Your task to perform on an android device: toggle wifi Image 0: 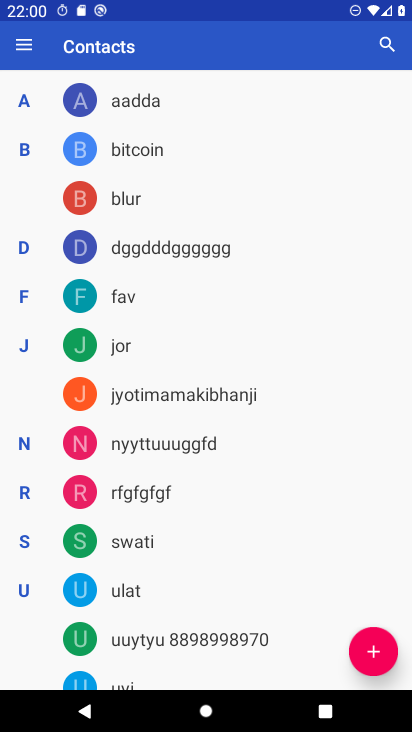
Step 0: press home button
Your task to perform on an android device: toggle wifi Image 1: 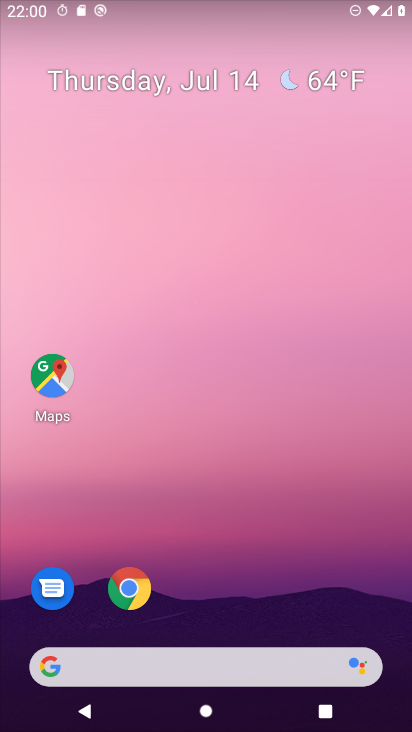
Step 1: drag from (358, 602) to (374, 49)
Your task to perform on an android device: toggle wifi Image 2: 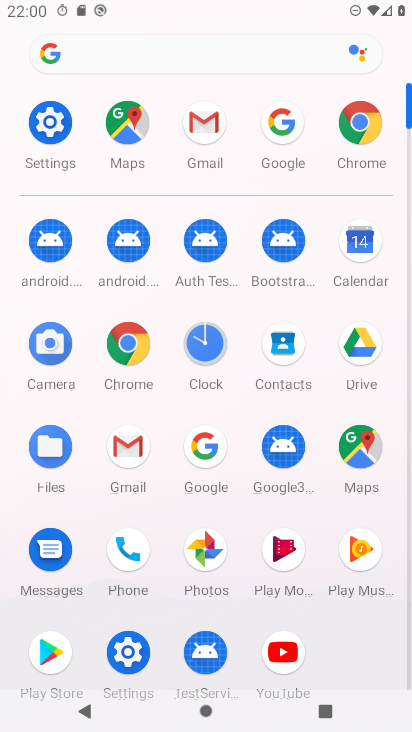
Step 2: click (49, 122)
Your task to perform on an android device: toggle wifi Image 3: 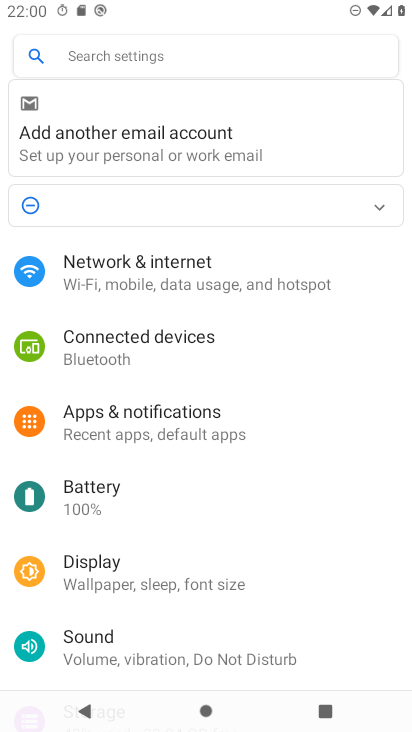
Step 3: drag from (343, 522) to (344, 431)
Your task to perform on an android device: toggle wifi Image 4: 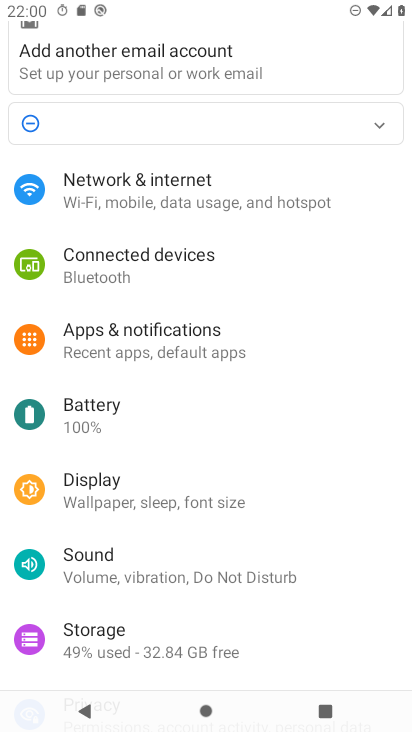
Step 4: drag from (346, 552) to (346, 436)
Your task to perform on an android device: toggle wifi Image 5: 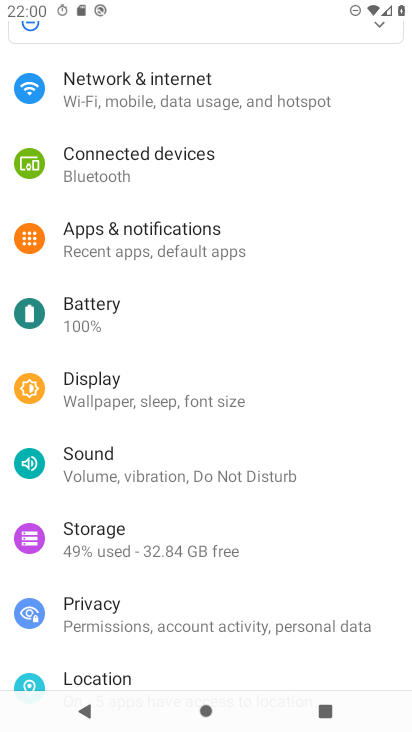
Step 5: drag from (344, 554) to (342, 439)
Your task to perform on an android device: toggle wifi Image 6: 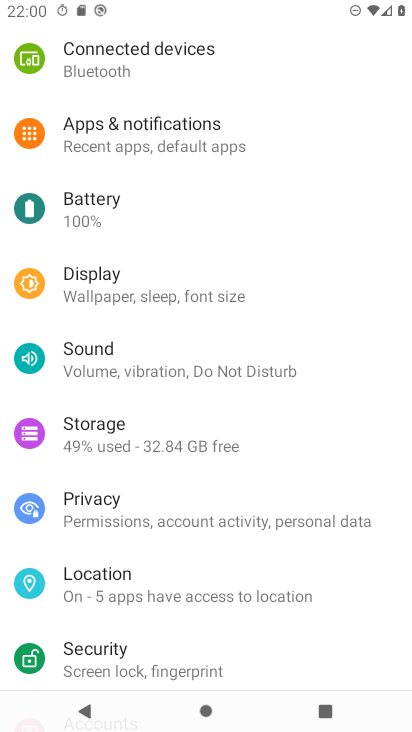
Step 6: drag from (349, 597) to (351, 507)
Your task to perform on an android device: toggle wifi Image 7: 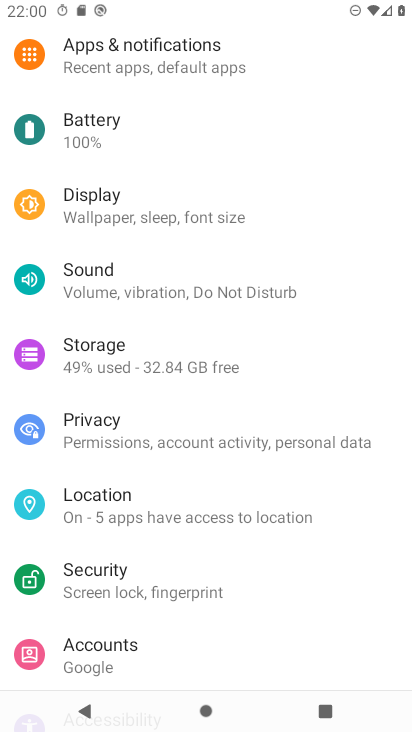
Step 7: drag from (353, 573) to (347, 453)
Your task to perform on an android device: toggle wifi Image 8: 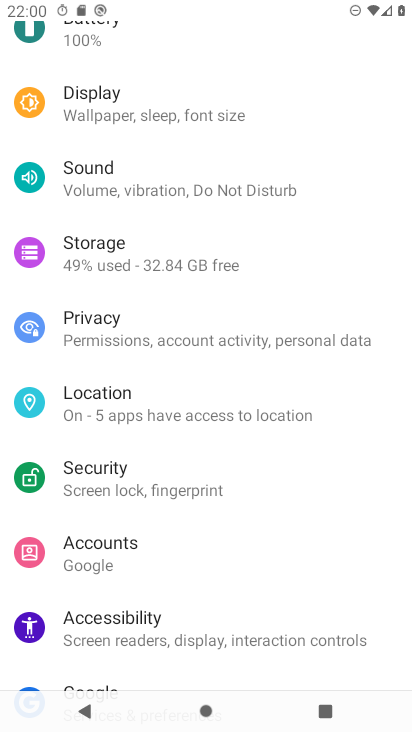
Step 8: drag from (345, 585) to (358, 419)
Your task to perform on an android device: toggle wifi Image 9: 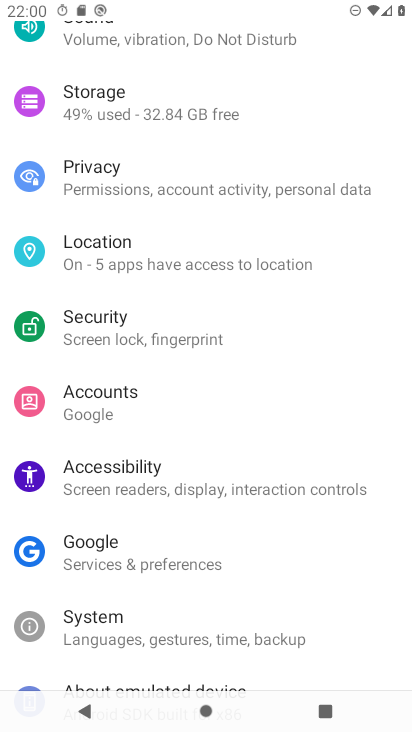
Step 9: drag from (377, 284) to (379, 379)
Your task to perform on an android device: toggle wifi Image 10: 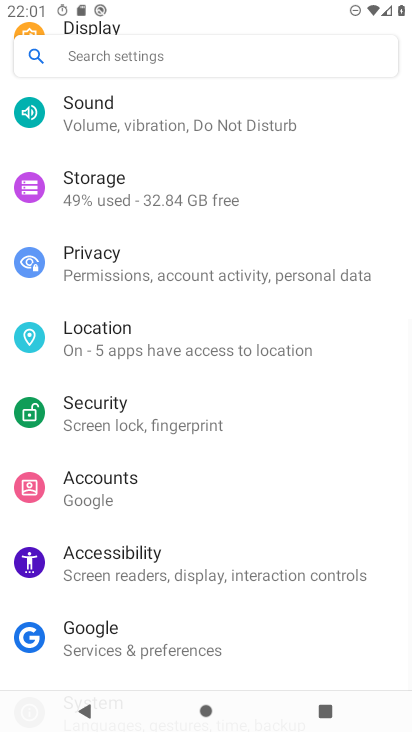
Step 10: drag from (379, 240) to (379, 352)
Your task to perform on an android device: toggle wifi Image 11: 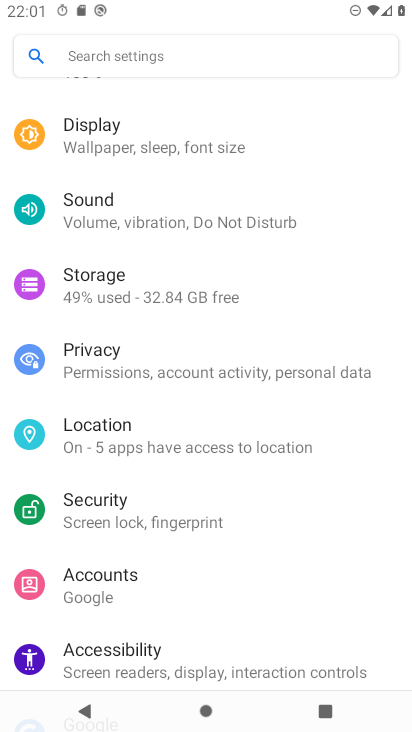
Step 11: drag from (364, 230) to (365, 355)
Your task to perform on an android device: toggle wifi Image 12: 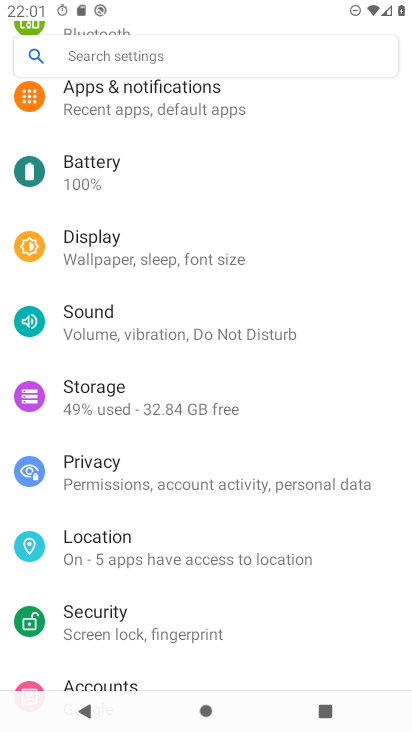
Step 12: drag from (348, 254) to (341, 363)
Your task to perform on an android device: toggle wifi Image 13: 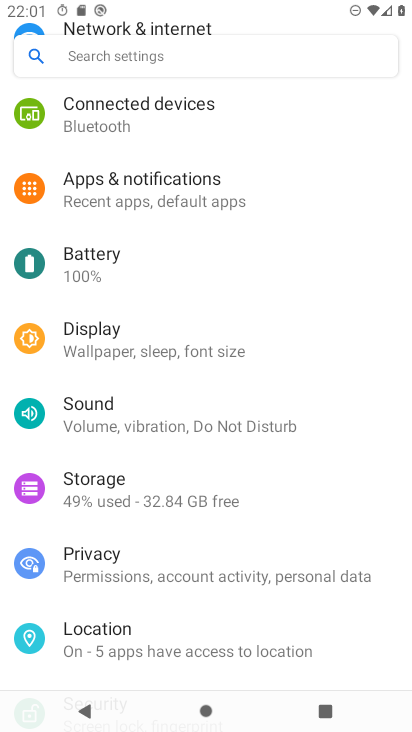
Step 13: drag from (329, 263) to (325, 365)
Your task to perform on an android device: toggle wifi Image 14: 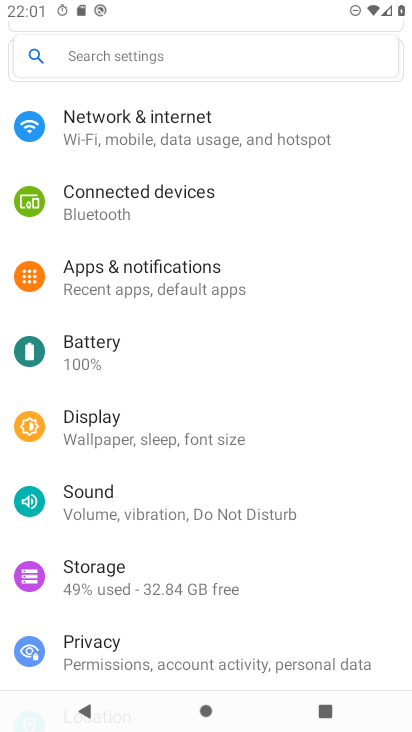
Step 14: drag from (325, 265) to (319, 390)
Your task to perform on an android device: toggle wifi Image 15: 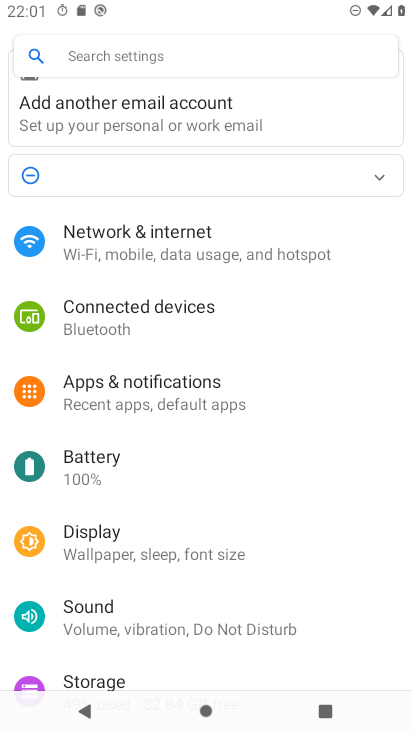
Step 15: drag from (325, 285) to (328, 412)
Your task to perform on an android device: toggle wifi Image 16: 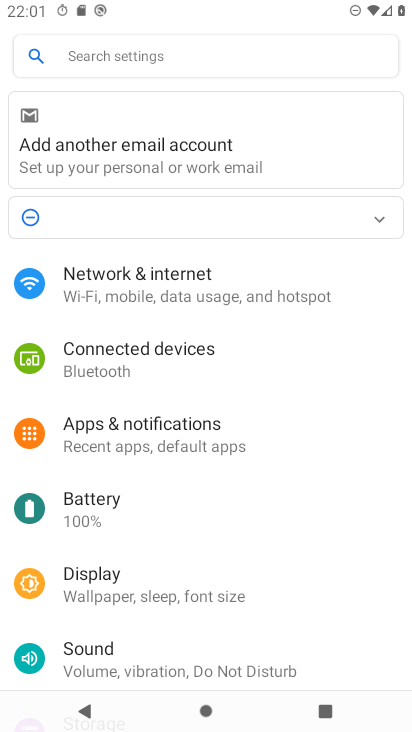
Step 16: click (277, 289)
Your task to perform on an android device: toggle wifi Image 17: 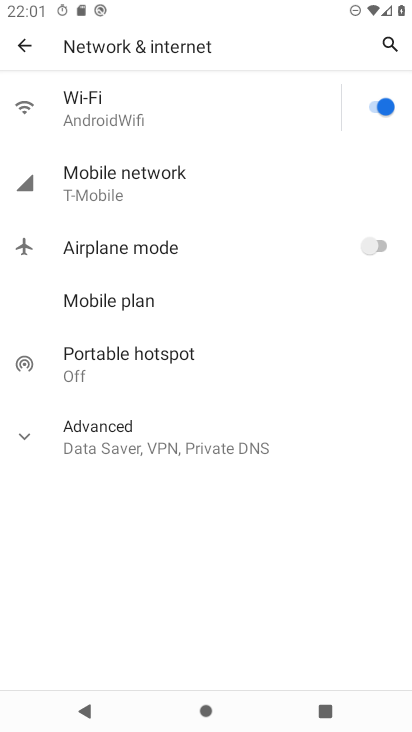
Step 17: click (376, 108)
Your task to perform on an android device: toggle wifi Image 18: 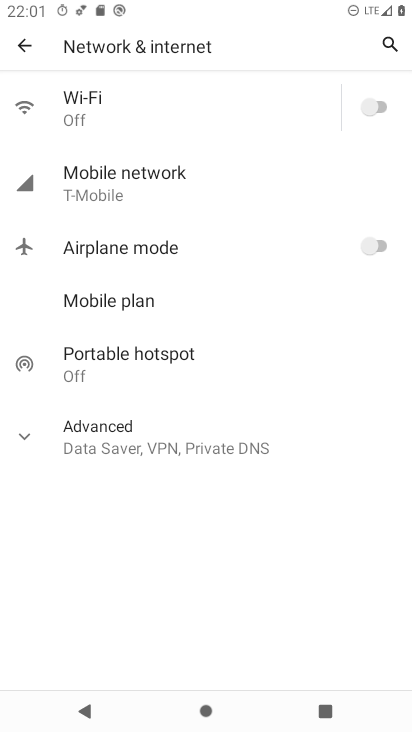
Step 18: task complete